Your task to perform on an android device: turn on wifi Image 0: 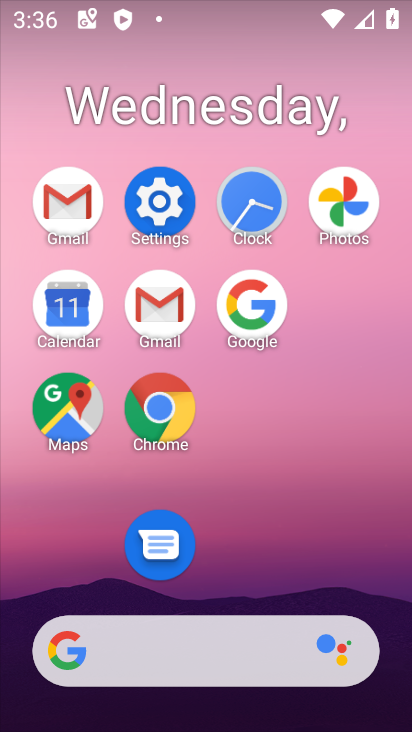
Step 0: click (154, 199)
Your task to perform on an android device: turn on wifi Image 1: 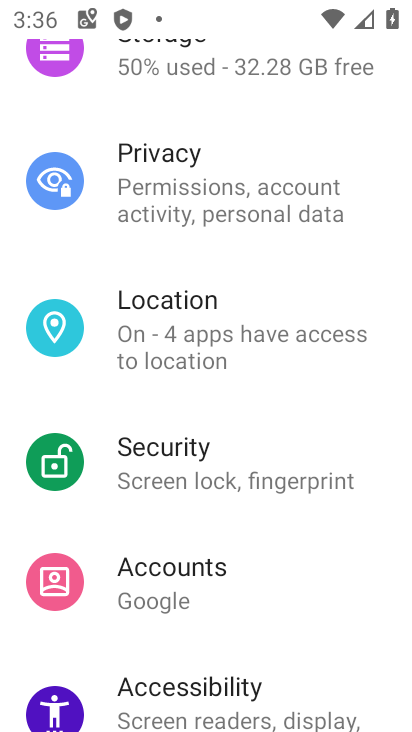
Step 1: drag from (281, 217) to (322, 729)
Your task to perform on an android device: turn on wifi Image 2: 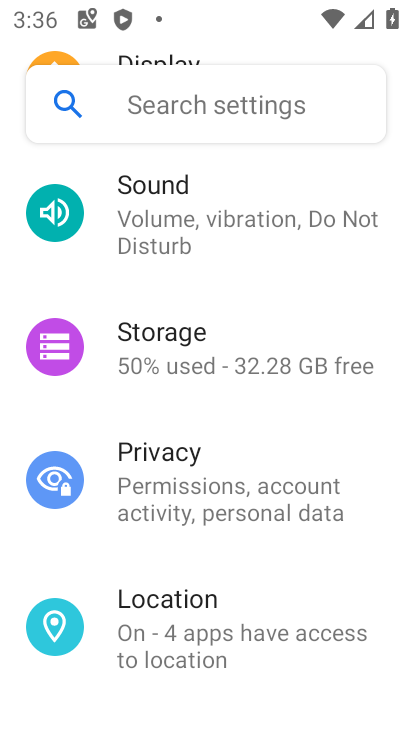
Step 2: drag from (308, 168) to (313, 665)
Your task to perform on an android device: turn on wifi Image 3: 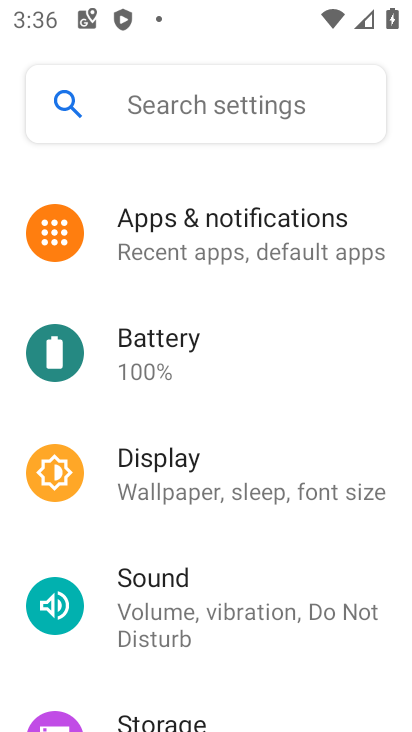
Step 3: drag from (312, 339) to (314, 653)
Your task to perform on an android device: turn on wifi Image 4: 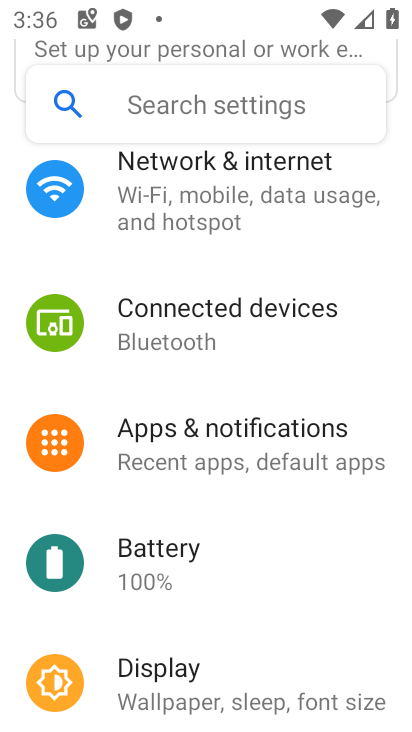
Step 4: click (185, 159)
Your task to perform on an android device: turn on wifi Image 5: 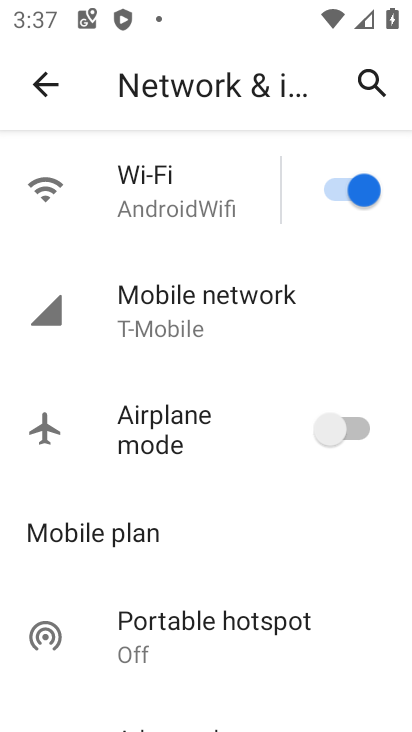
Step 5: task complete